Your task to perform on an android device: Show me popular games on the Play Store Image 0: 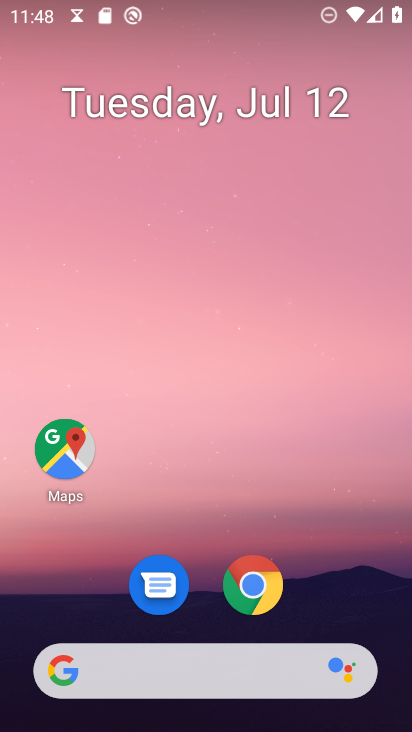
Step 0: drag from (191, 678) to (181, 59)
Your task to perform on an android device: Show me popular games on the Play Store Image 1: 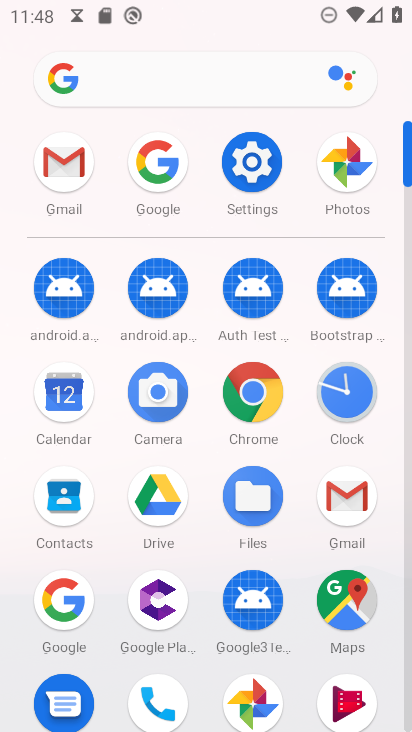
Step 1: drag from (145, 652) to (287, 70)
Your task to perform on an android device: Show me popular games on the Play Store Image 2: 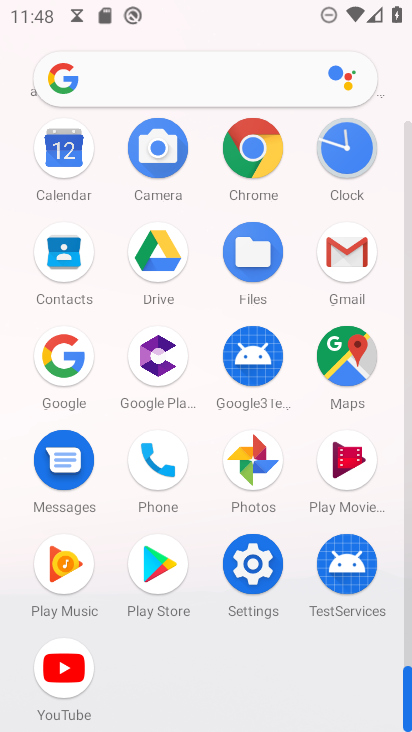
Step 2: click (146, 577)
Your task to perform on an android device: Show me popular games on the Play Store Image 3: 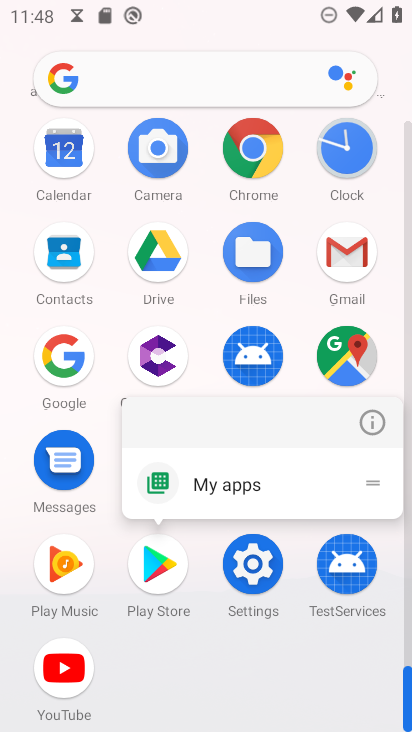
Step 3: click (153, 569)
Your task to perform on an android device: Show me popular games on the Play Store Image 4: 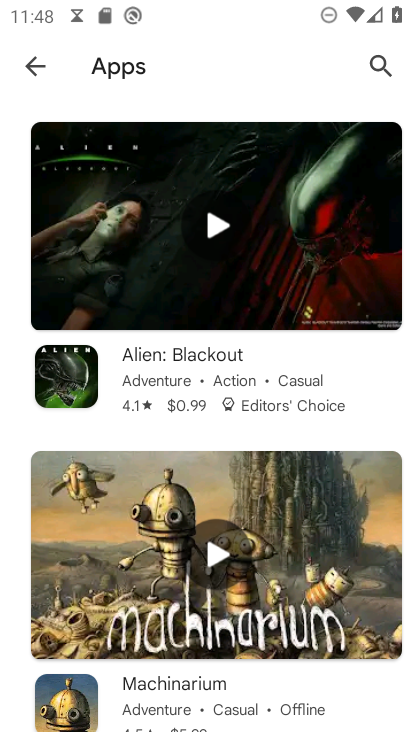
Step 4: click (31, 60)
Your task to perform on an android device: Show me popular games on the Play Store Image 5: 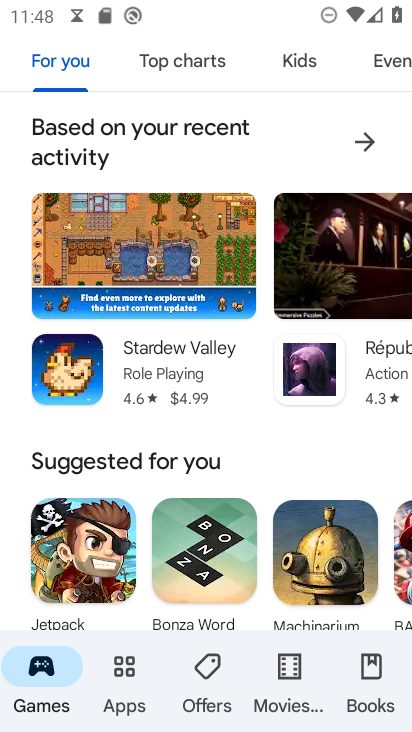
Step 5: drag from (150, 601) to (274, 142)
Your task to perform on an android device: Show me popular games on the Play Store Image 6: 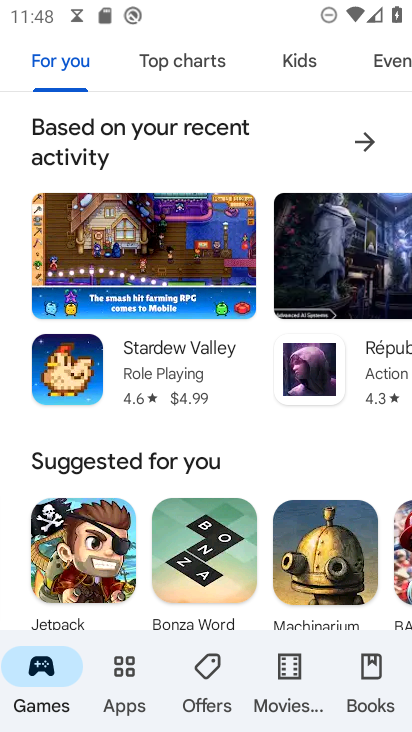
Step 6: drag from (138, 484) to (261, 87)
Your task to perform on an android device: Show me popular games on the Play Store Image 7: 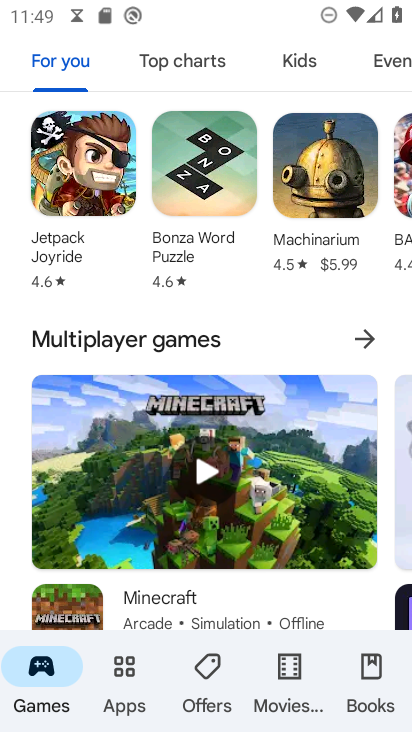
Step 7: drag from (109, 555) to (268, 100)
Your task to perform on an android device: Show me popular games on the Play Store Image 8: 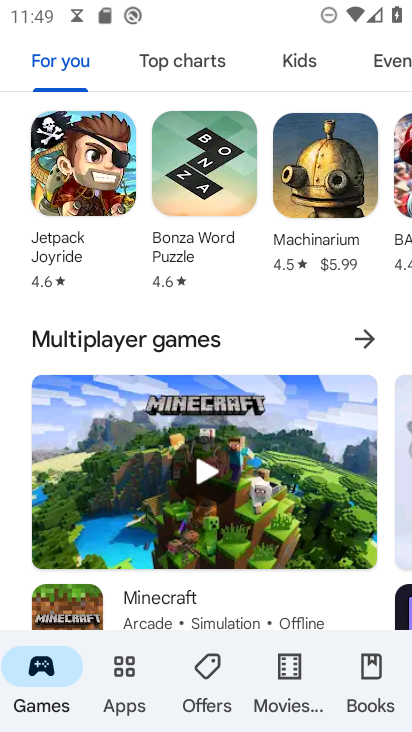
Step 8: drag from (241, 422) to (329, 79)
Your task to perform on an android device: Show me popular games on the Play Store Image 9: 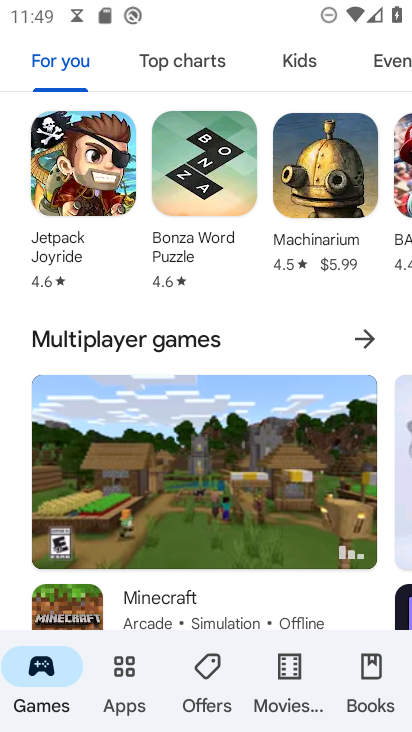
Step 9: drag from (219, 552) to (314, 75)
Your task to perform on an android device: Show me popular games on the Play Store Image 10: 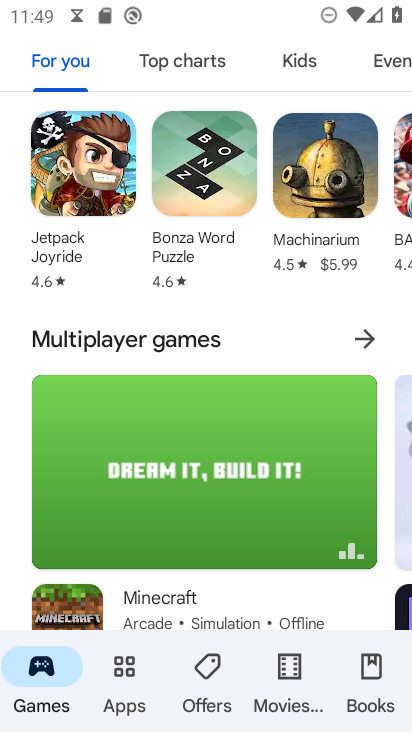
Step 10: drag from (252, 257) to (234, 640)
Your task to perform on an android device: Show me popular games on the Play Store Image 11: 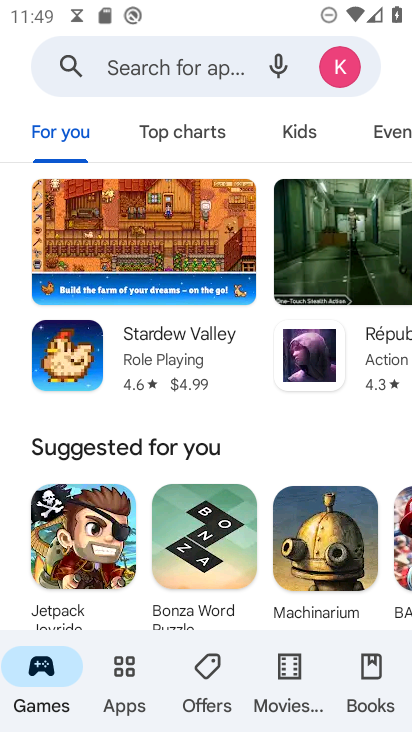
Step 11: drag from (143, 579) to (270, 37)
Your task to perform on an android device: Show me popular games on the Play Store Image 12: 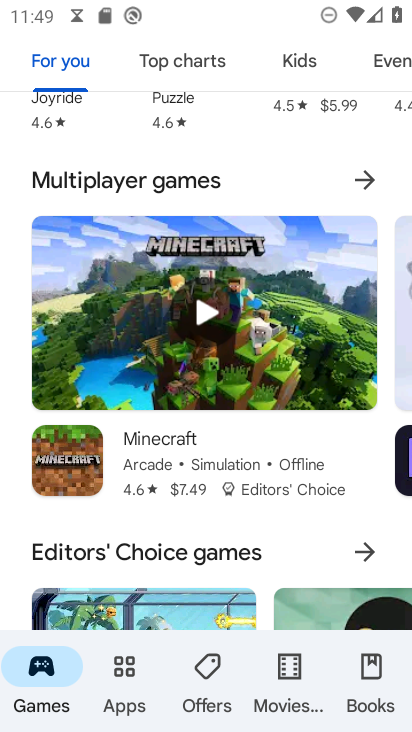
Step 12: drag from (151, 572) to (343, 54)
Your task to perform on an android device: Show me popular games on the Play Store Image 13: 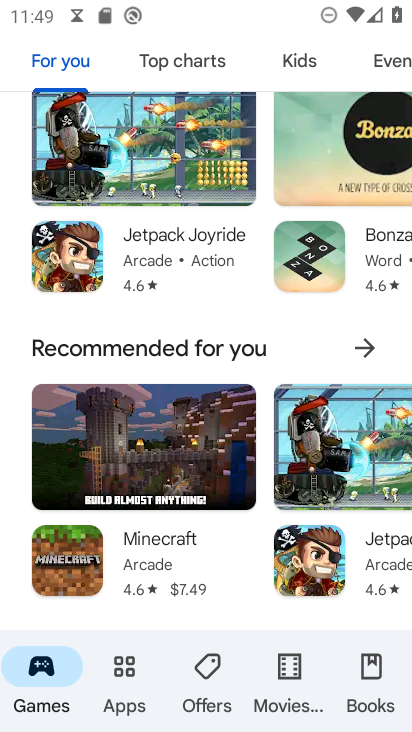
Step 13: drag from (212, 605) to (335, 65)
Your task to perform on an android device: Show me popular games on the Play Store Image 14: 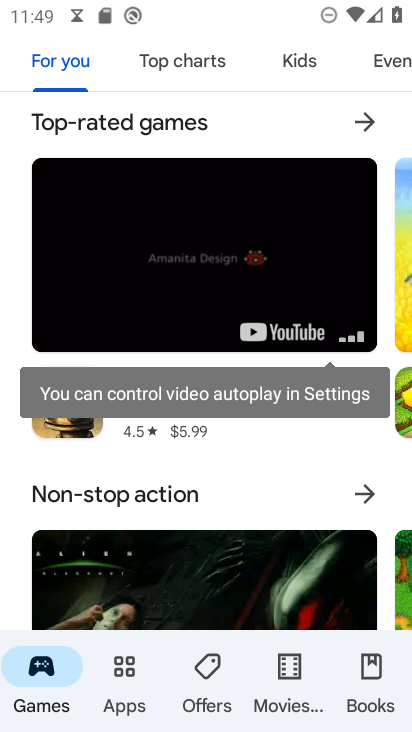
Step 14: drag from (233, 373) to (308, 65)
Your task to perform on an android device: Show me popular games on the Play Store Image 15: 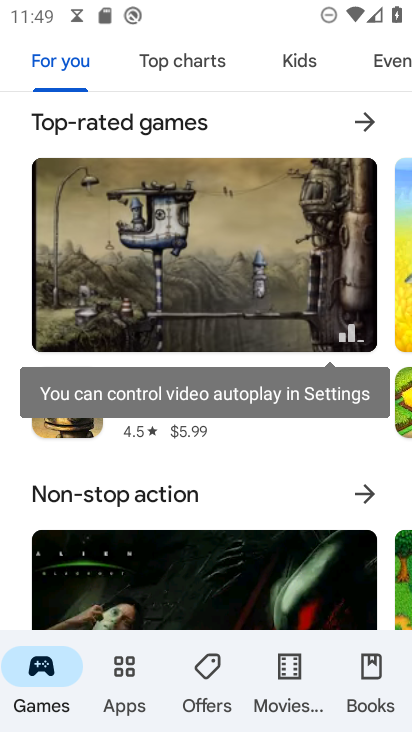
Step 15: drag from (188, 545) to (308, 159)
Your task to perform on an android device: Show me popular games on the Play Store Image 16: 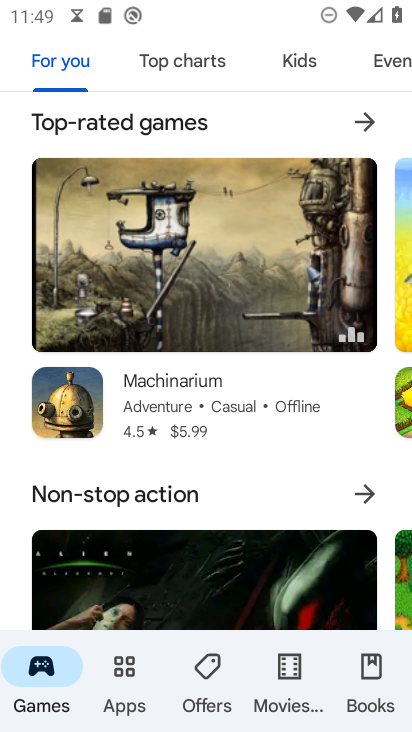
Step 16: click (364, 117)
Your task to perform on an android device: Show me popular games on the Play Store Image 17: 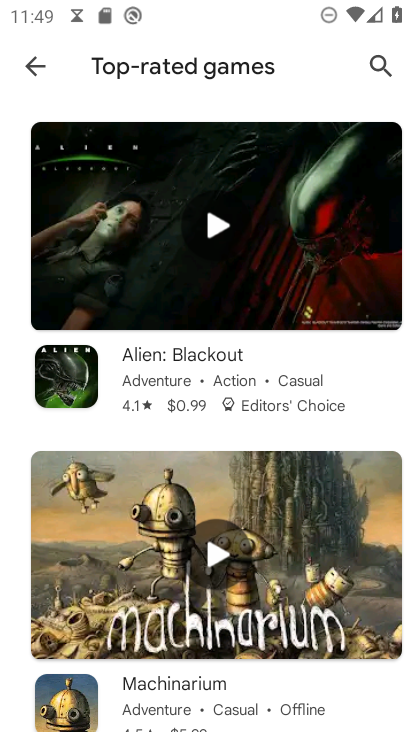
Step 17: task complete